Your task to perform on an android device: delete a single message in the gmail app Image 0: 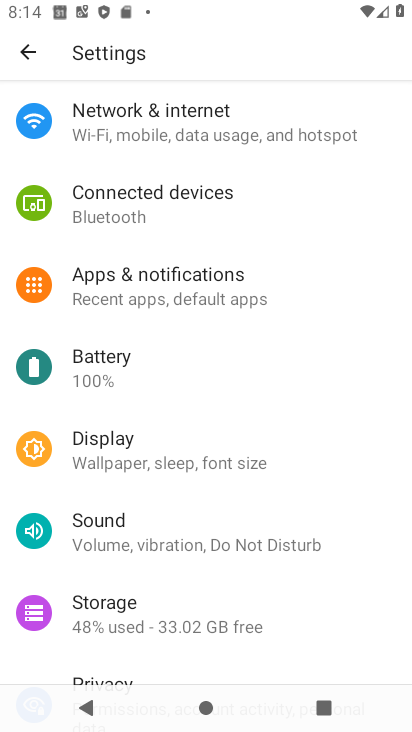
Step 0: press back button
Your task to perform on an android device: delete a single message in the gmail app Image 1: 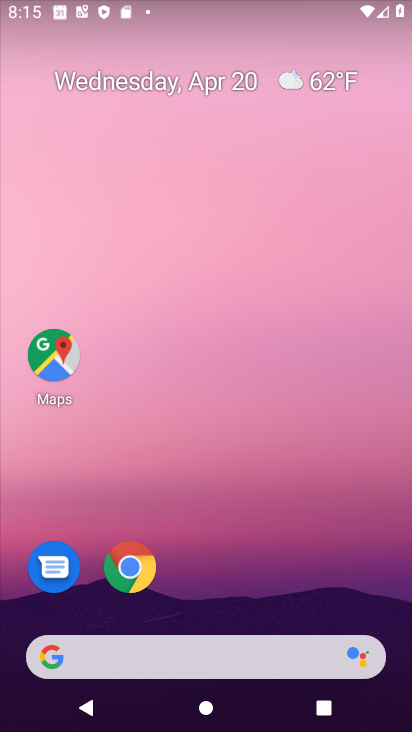
Step 1: drag from (248, 513) to (250, 37)
Your task to perform on an android device: delete a single message in the gmail app Image 2: 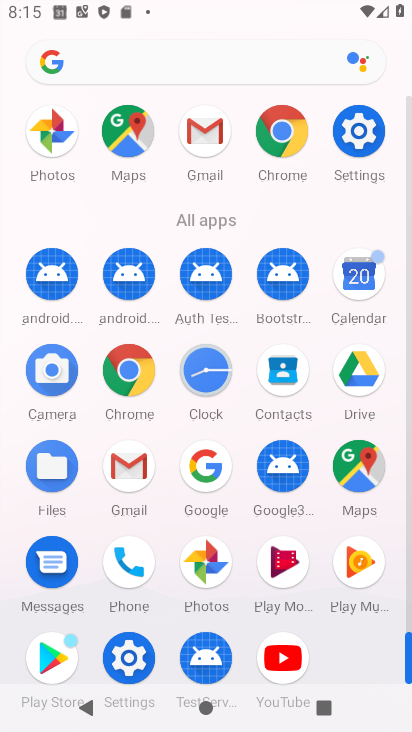
Step 2: click (207, 121)
Your task to perform on an android device: delete a single message in the gmail app Image 3: 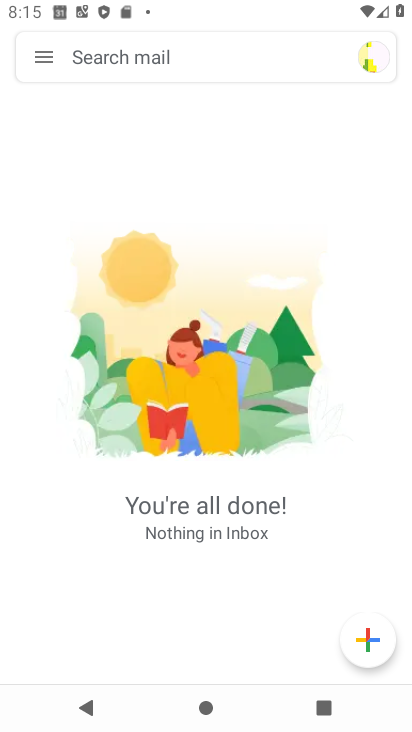
Step 3: click (43, 53)
Your task to perform on an android device: delete a single message in the gmail app Image 4: 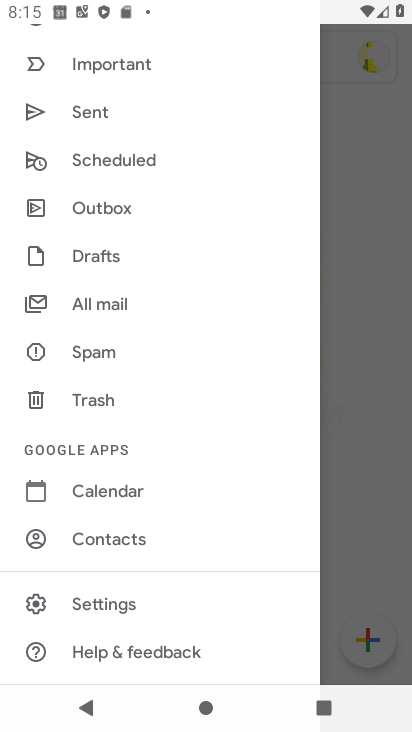
Step 4: drag from (213, 141) to (217, 492)
Your task to perform on an android device: delete a single message in the gmail app Image 5: 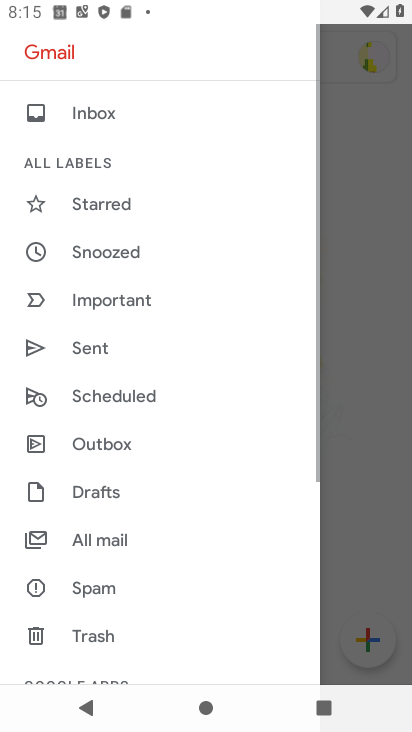
Step 5: drag from (198, 483) to (203, 169)
Your task to perform on an android device: delete a single message in the gmail app Image 6: 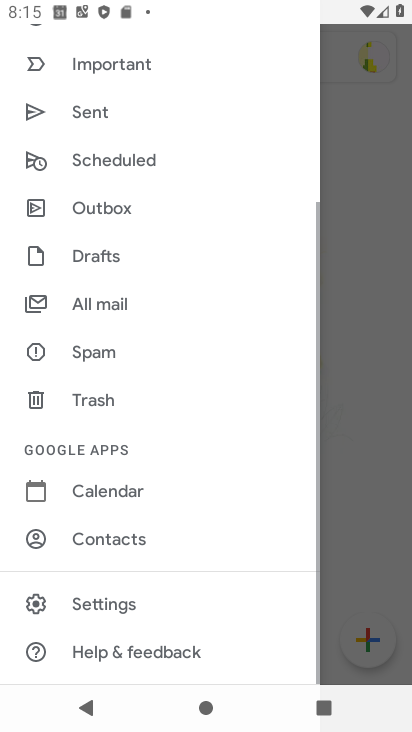
Step 6: drag from (202, 499) to (213, 120)
Your task to perform on an android device: delete a single message in the gmail app Image 7: 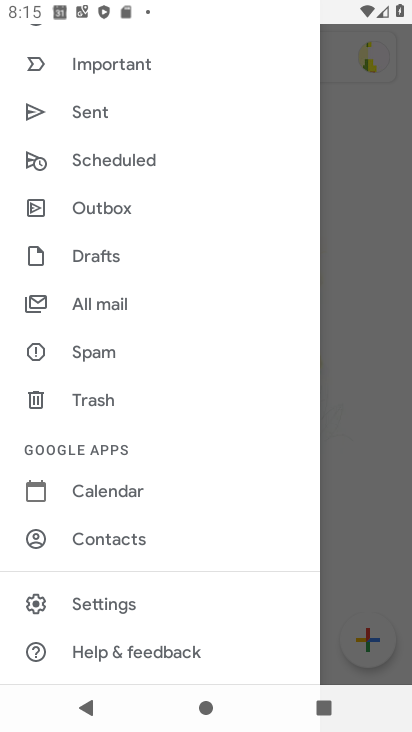
Step 7: click (133, 300)
Your task to perform on an android device: delete a single message in the gmail app Image 8: 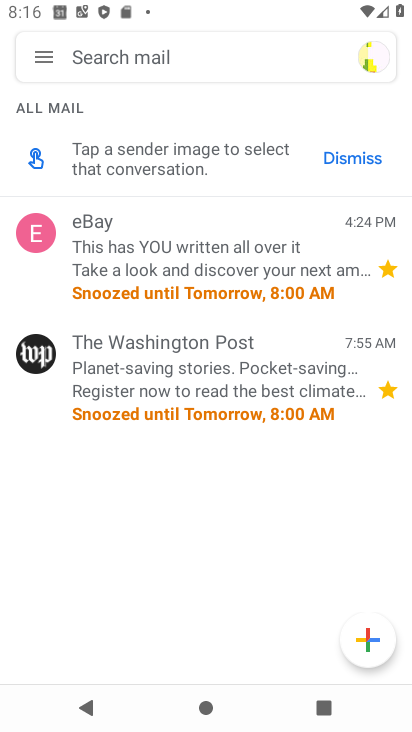
Step 8: click (180, 262)
Your task to perform on an android device: delete a single message in the gmail app Image 9: 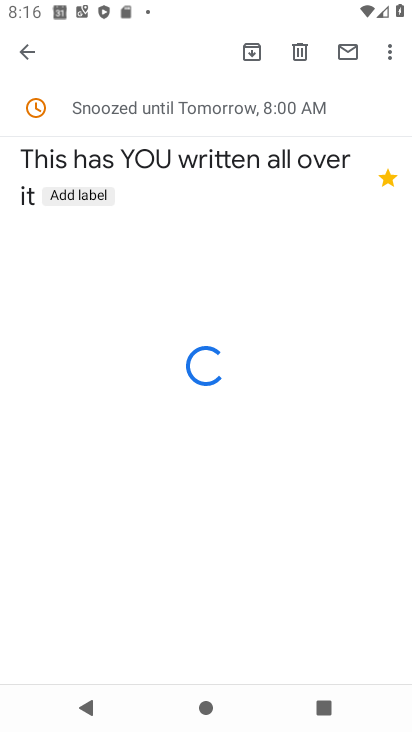
Step 9: click (299, 52)
Your task to perform on an android device: delete a single message in the gmail app Image 10: 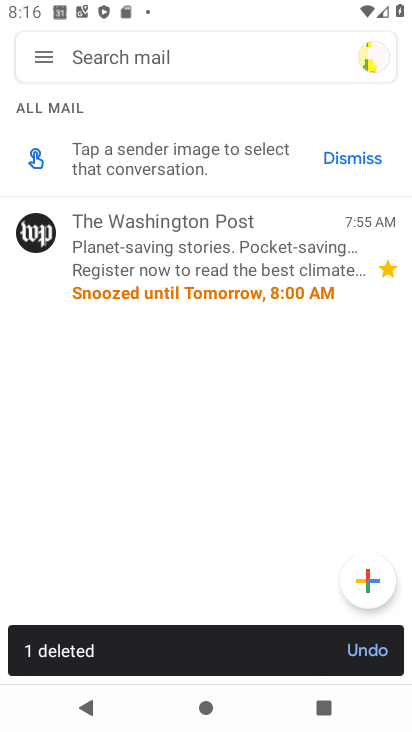
Step 10: task complete